Your task to perform on an android device: Search for hotels in Atlanta Image 0: 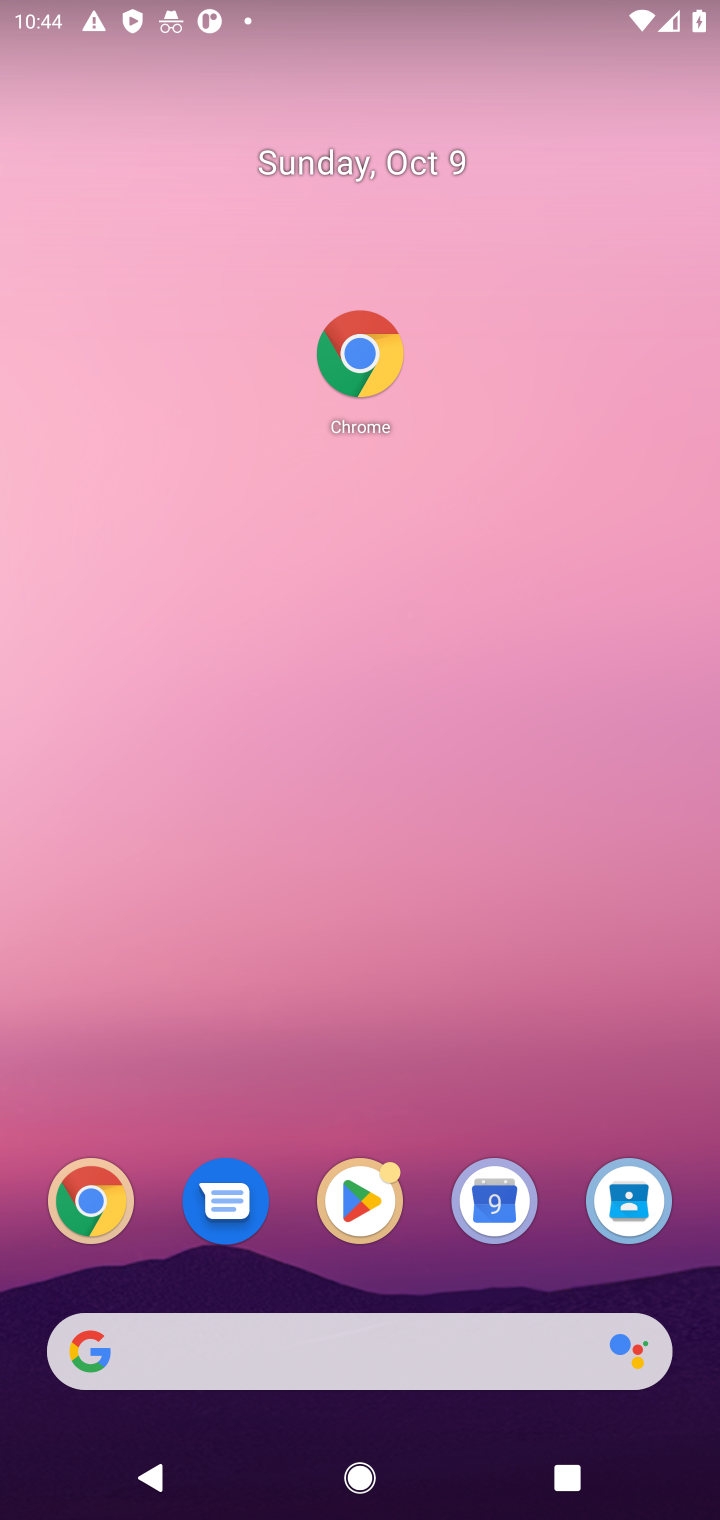
Step 0: click (83, 1209)
Your task to perform on an android device: Search for hotels in Atlanta Image 1: 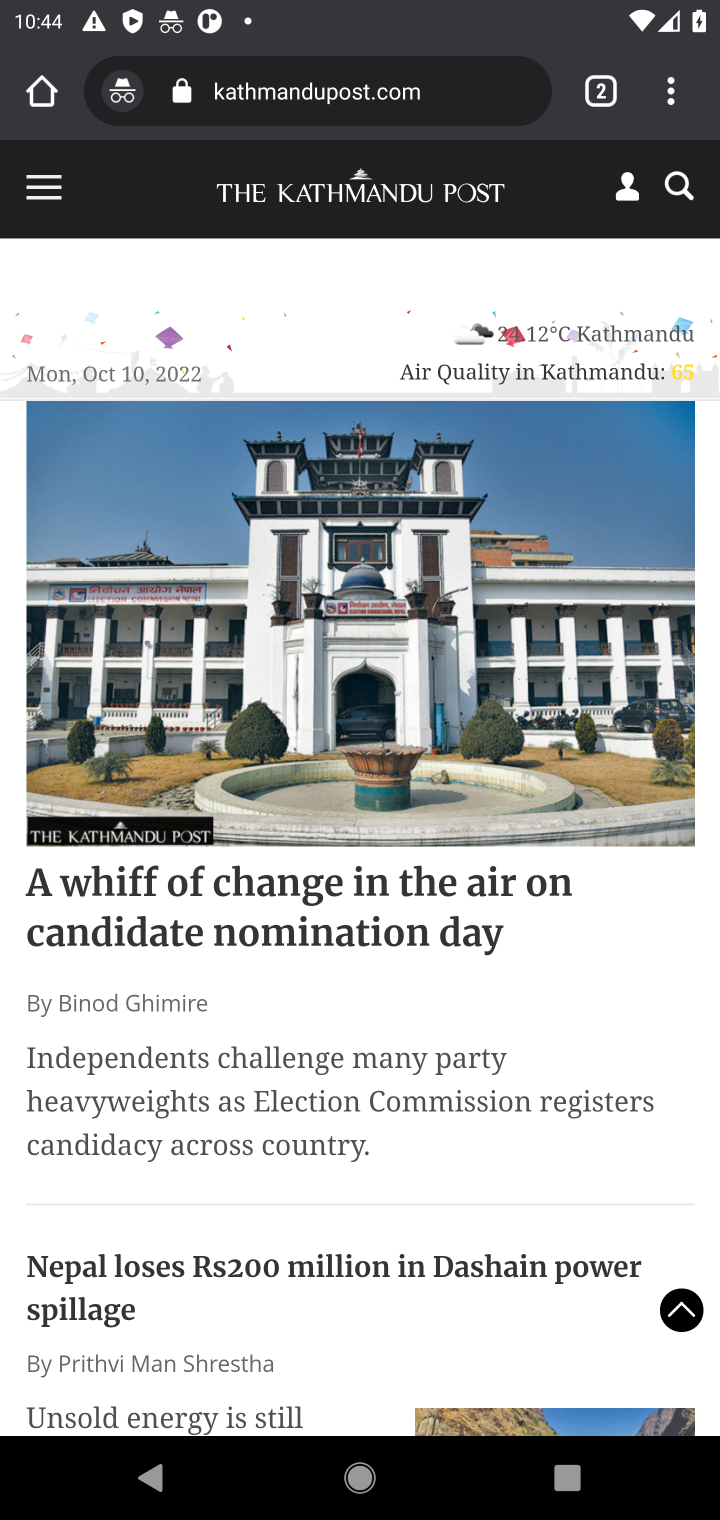
Step 1: click (323, 82)
Your task to perform on an android device: Search for hotels in Atlanta Image 2: 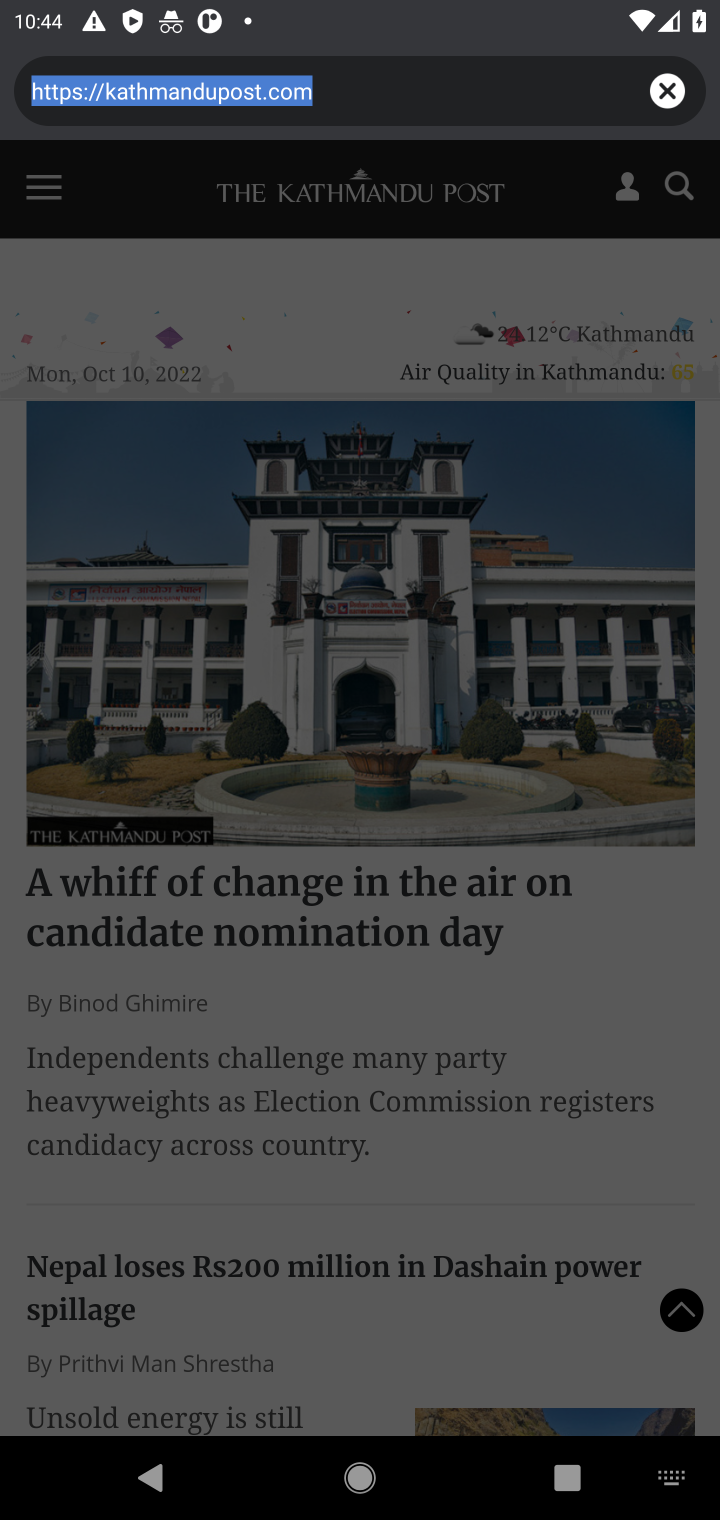
Step 2: type "hotel in Atlanta"
Your task to perform on an android device: Search for hotels in Atlanta Image 3: 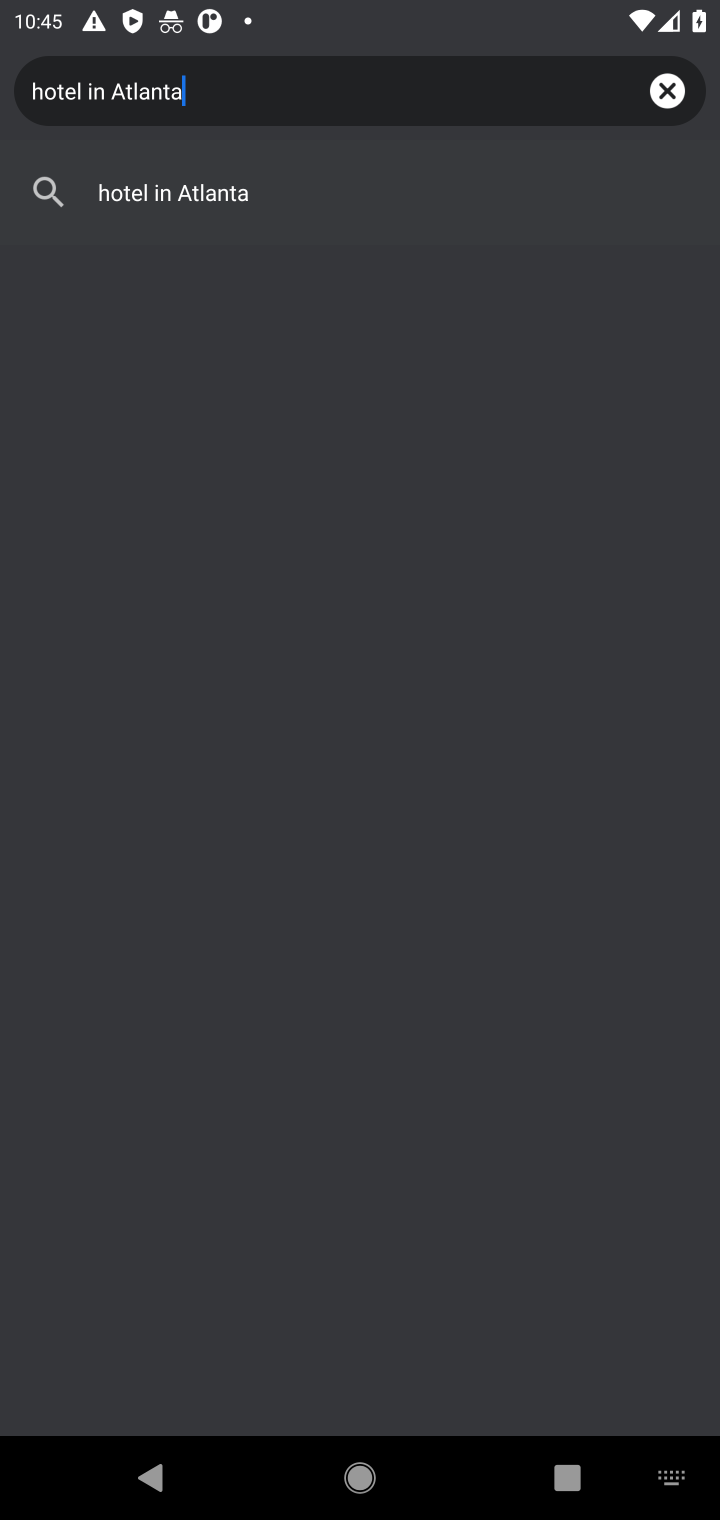
Step 3: click (266, 210)
Your task to perform on an android device: Search for hotels in Atlanta Image 4: 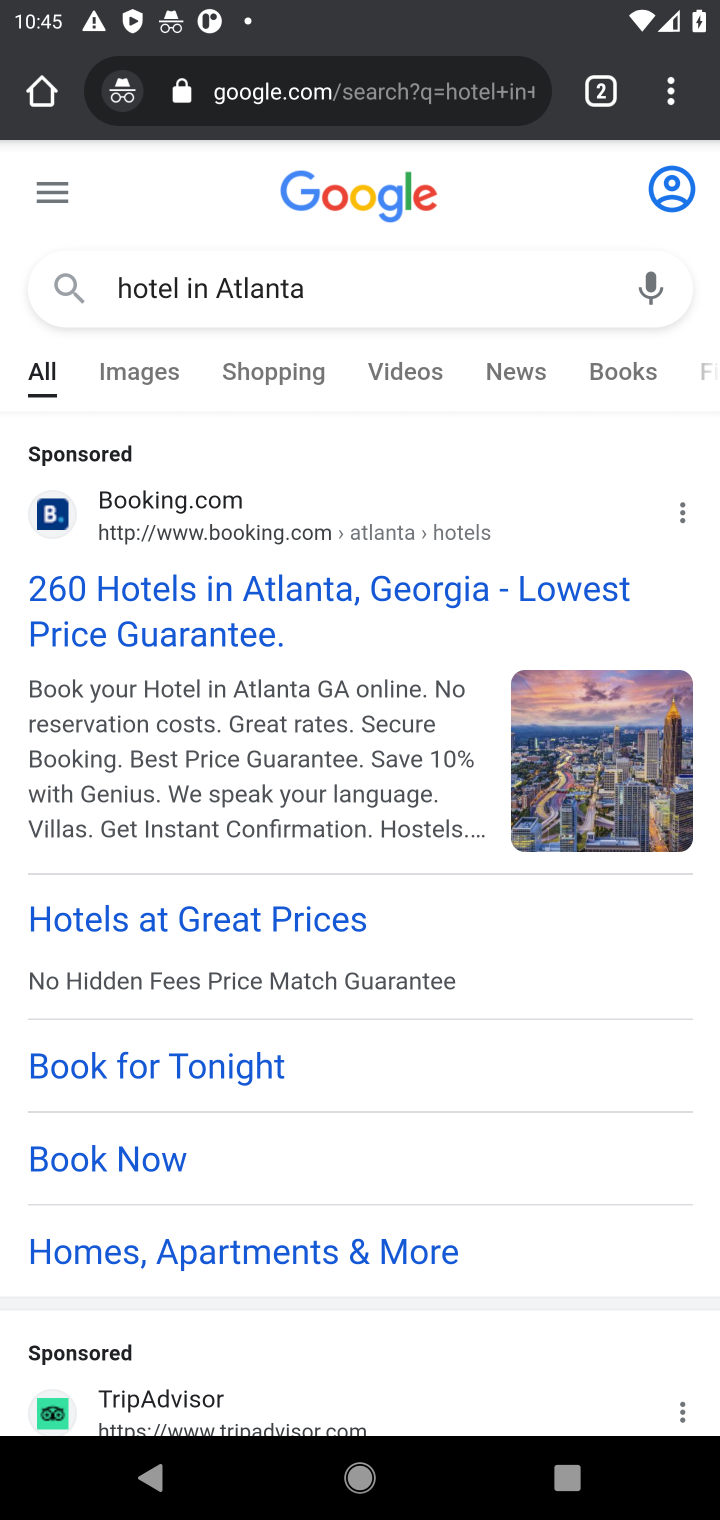
Step 4: click (344, 621)
Your task to perform on an android device: Search for hotels in Atlanta Image 5: 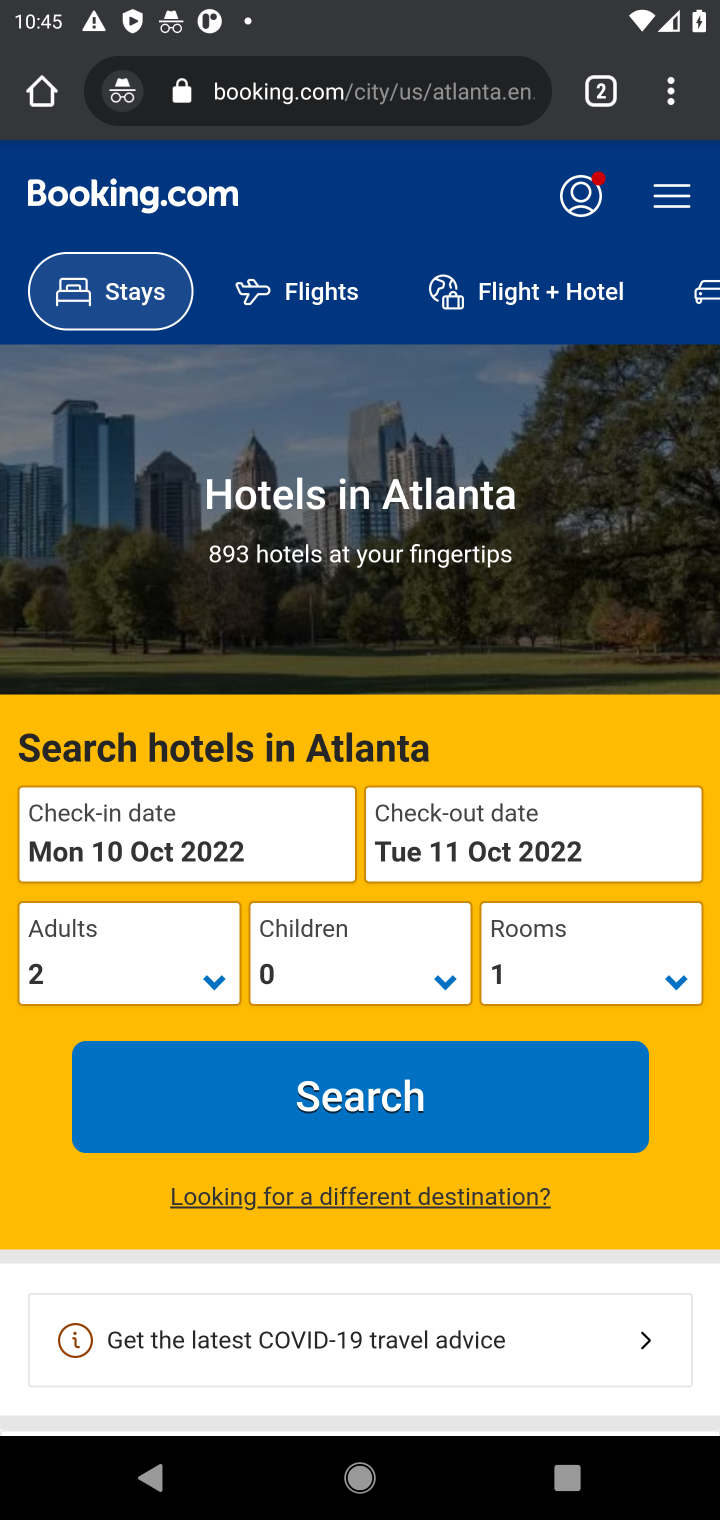
Step 5: drag from (438, 967) to (417, 1389)
Your task to perform on an android device: Search for hotels in Atlanta Image 6: 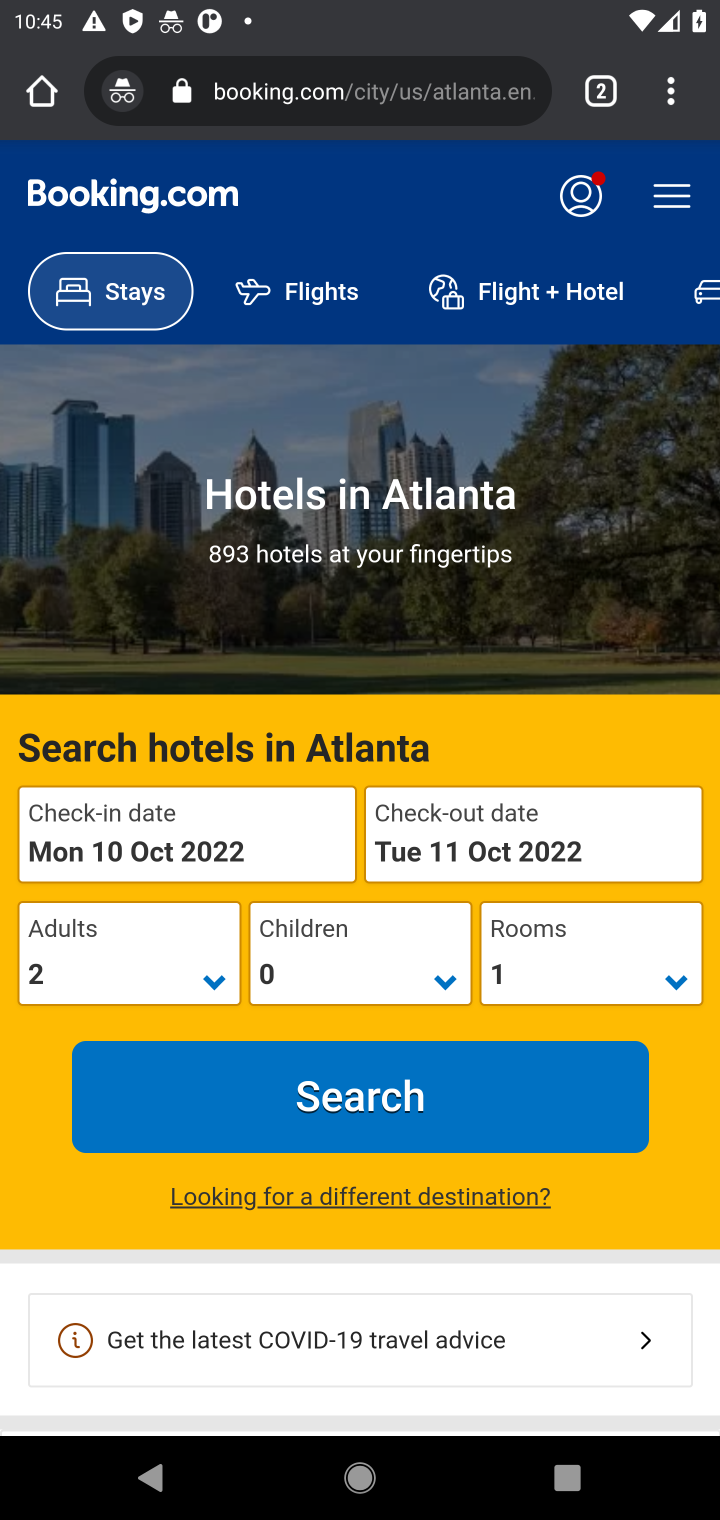
Step 6: drag from (410, 1058) to (377, 397)
Your task to perform on an android device: Search for hotels in Atlanta Image 7: 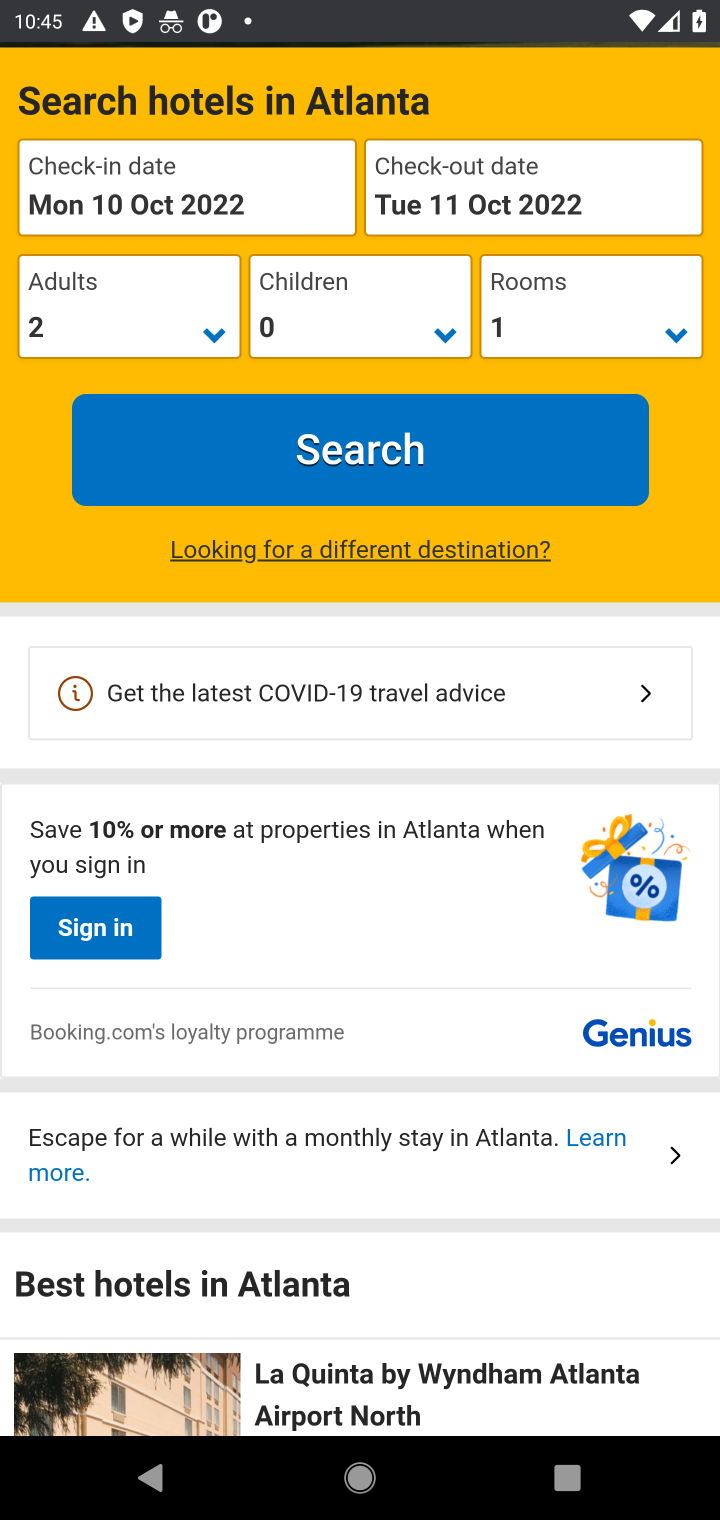
Step 7: click (361, 748)
Your task to perform on an android device: Search for hotels in Atlanta Image 8: 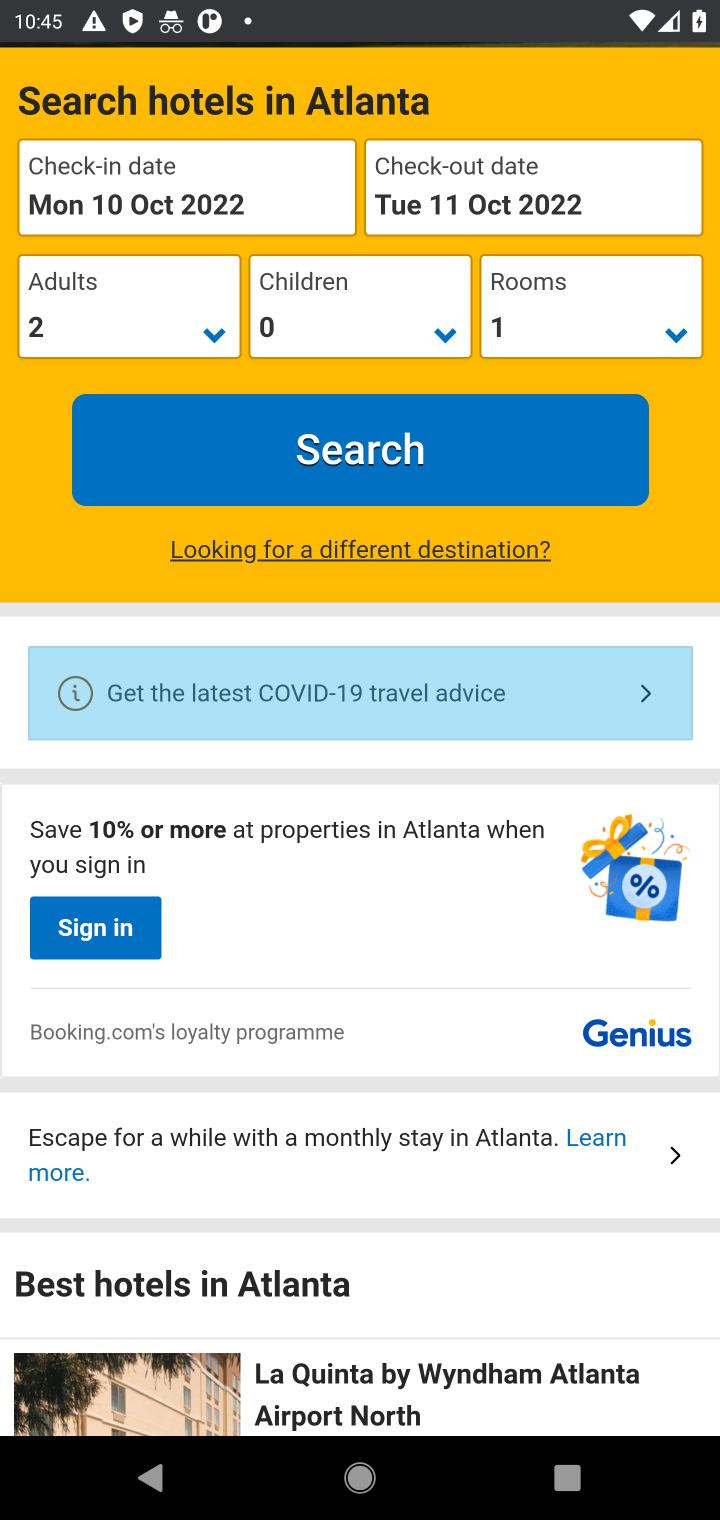
Step 8: task complete